Your task to perform on an android device: find photos in the google photos app Image 0: 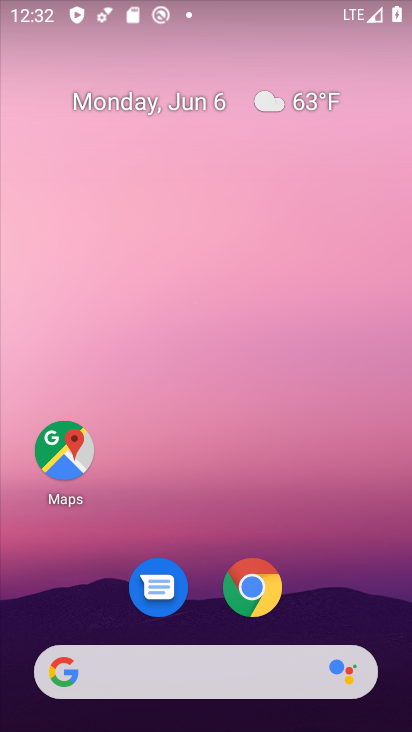
Step 0: drag from (374, 617) to (315, 248)
Your task to perform on an android device: find photos in the google photos app Image 1: 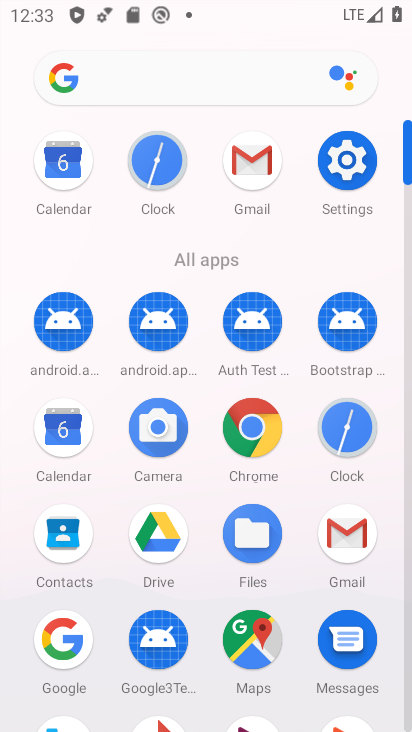
Step 1: click (411, 721)
Your task to perform on an android device: find photos in the google photos app Image 2: 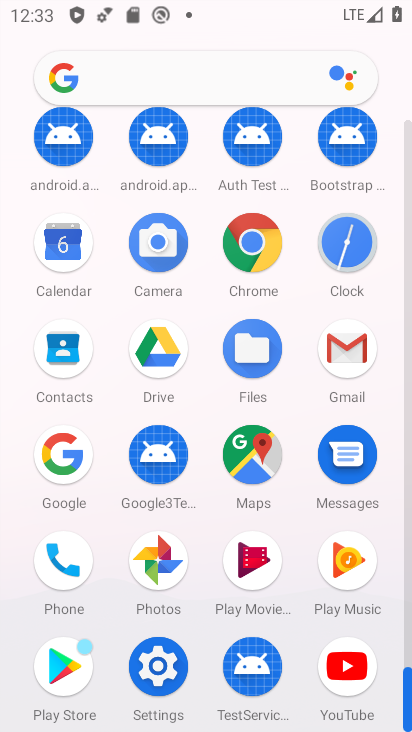
Step 2: click (170, 553)
Your task to perform on an android device: find photos in the google photos app Image 3: 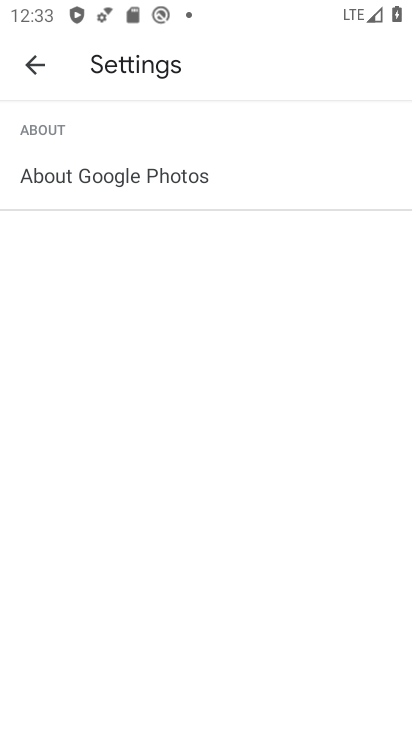
Step 3: click (40, 76)
Your task to perform on an android device: find photos in the google photos app Image 4: 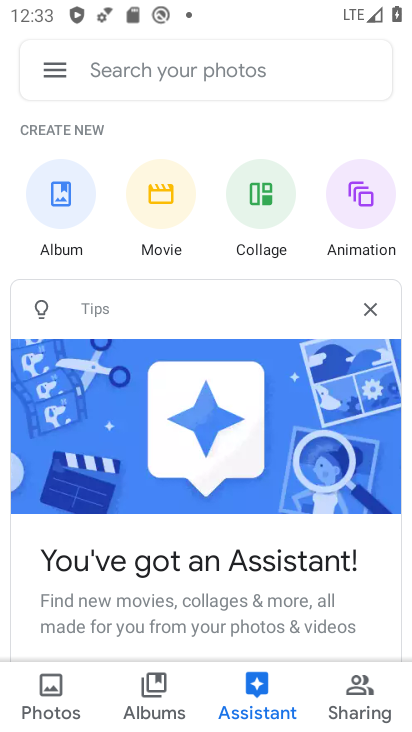
Step 4: click (66, 697)
Your task to perform on an android device: find photos in the google photos app Image 5: 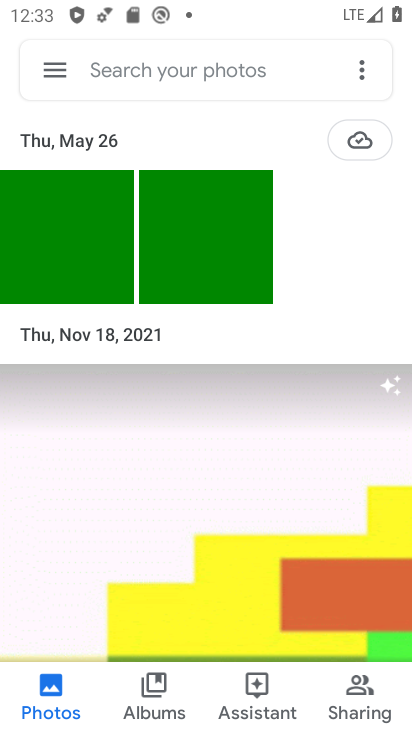
Step 5: task complete